Your task to perform on an android device: turn on showing notifications on the lock screen Image 0: 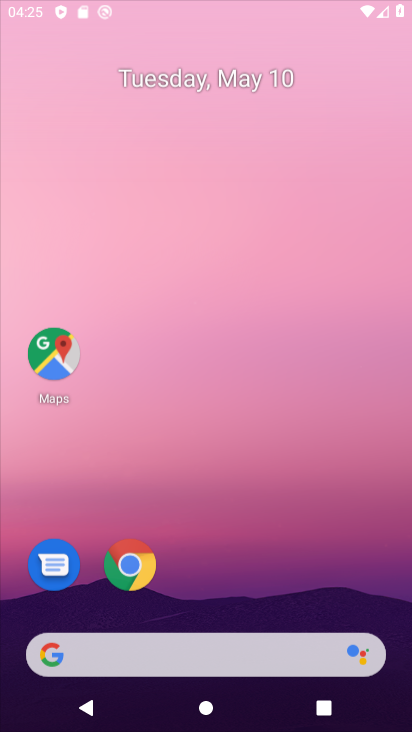
Step 0: click (391, 0)
Your task to perform on an android device: turn on showing notifications on the lock screen Image 1: 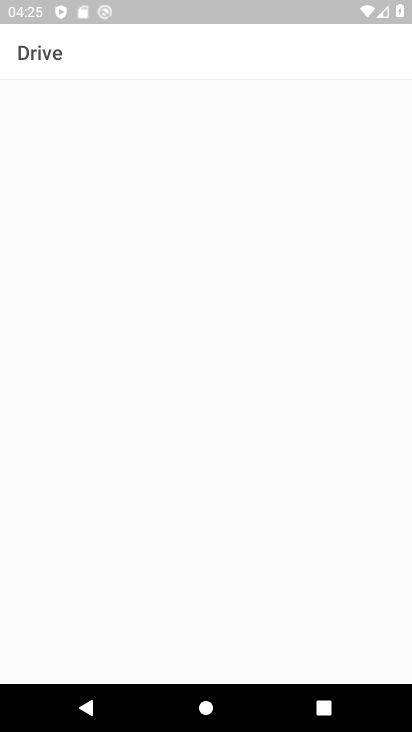
Step 1: press home button
Your task to perform on an android device: turn on showing notifications on the lock screen Image 2: 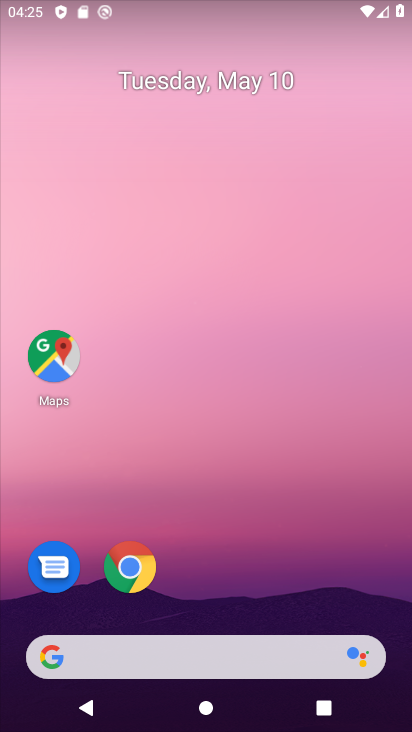
Step 2: drag from (284, 549) to (315, 58)
Your task to perform on an android device: turn on showing notifications on the lock screen Image 3: 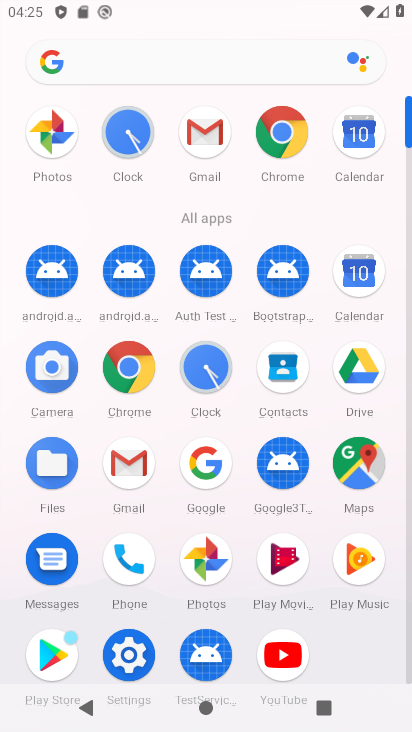
Step 3: click (129, 648)
Your task to perform on an android device: turn on showing notifications on the lock screen Image 4: 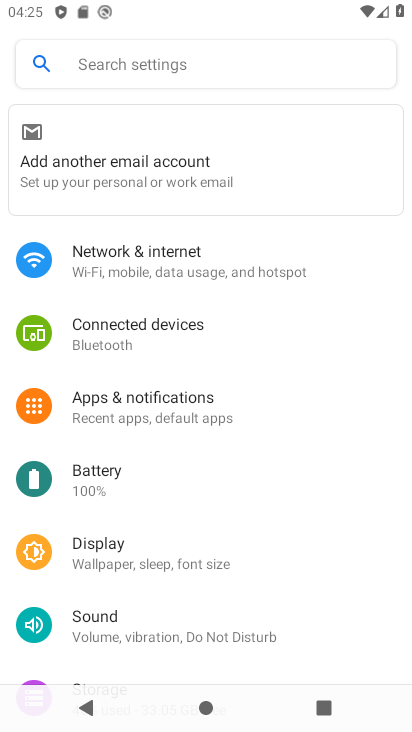
Step 4: click (113, 391)
Your task to perform on an android device: turn on showing notifications on the lock screen Image 5: 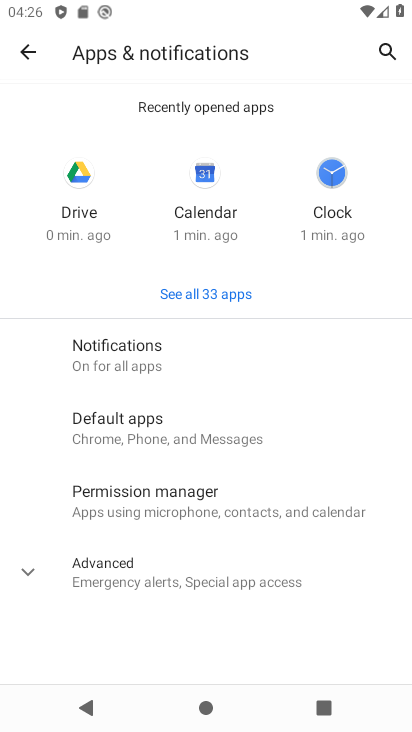
Step 5: click (101, 370)
Your task to perform on an android device: turn on showing notifications on the lock screen Image 6: 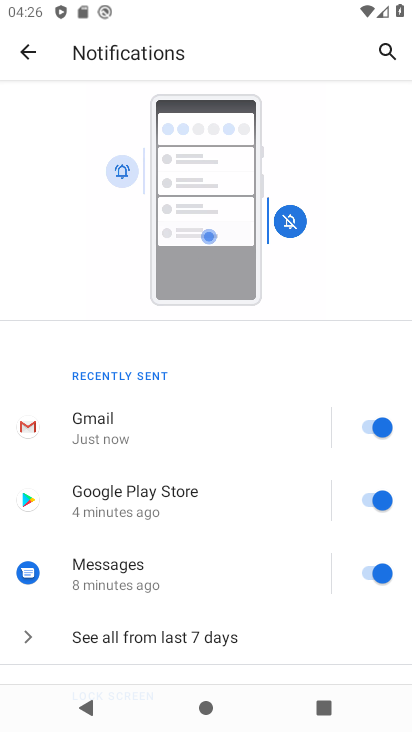
Step 6: drag from (150, 611) to (260, 109)
Your task to perform on an android device: turn on showing notifications on the lock screen Image 7: 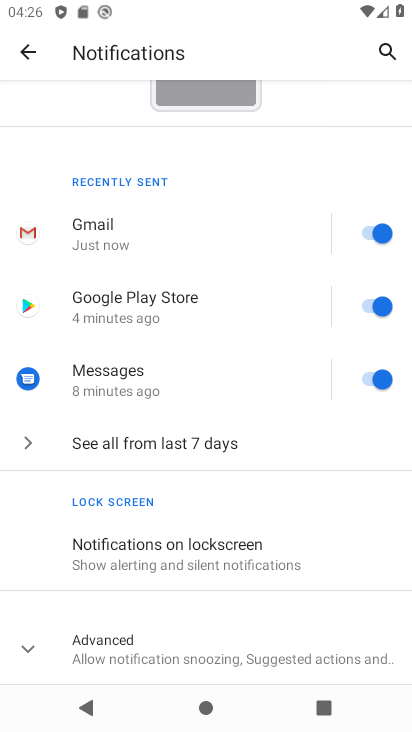
Step 7: click (200, 568)
Your task to perform on an android device: turn on showing notifications on the lock screen Image 8: 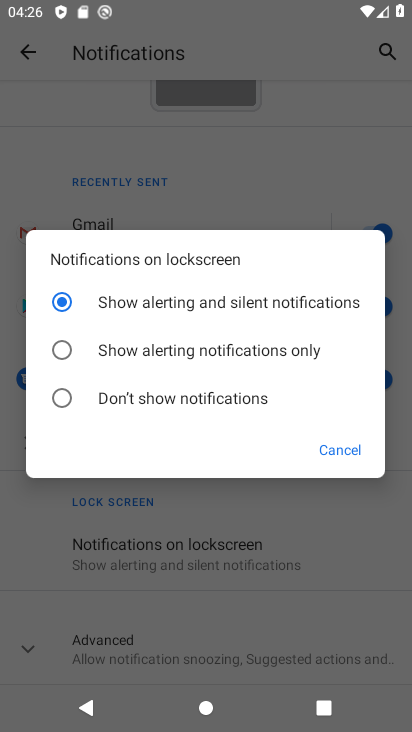
Step 8: click (158, 292)
Your task to perform on an android device: turn on showing notifications on the lock screen Image 9: 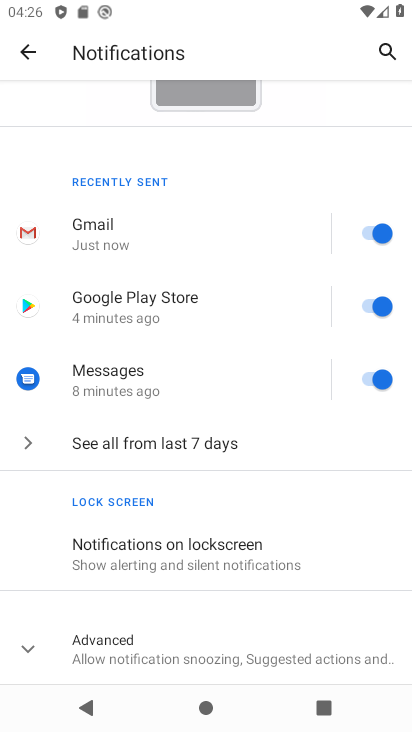
Step 9: task complete